Your task to perform on an android device: turn vacation reply on in the gmail app Image 0: 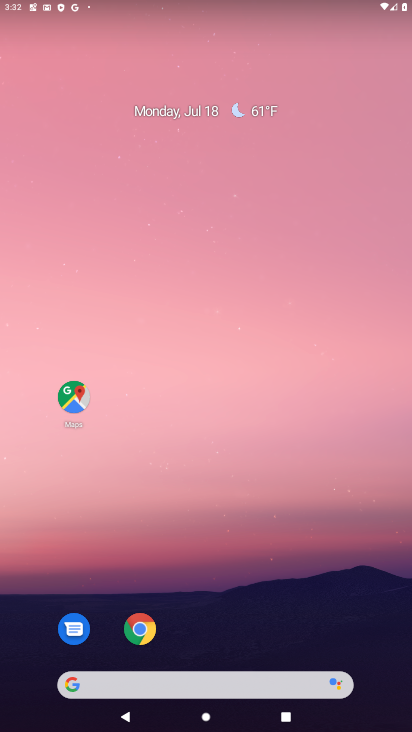
Step 0: drag from (209, 625) to (162, 141)
Your task to perform on an android device: turn vacation reply on in the gmail app Image 1: 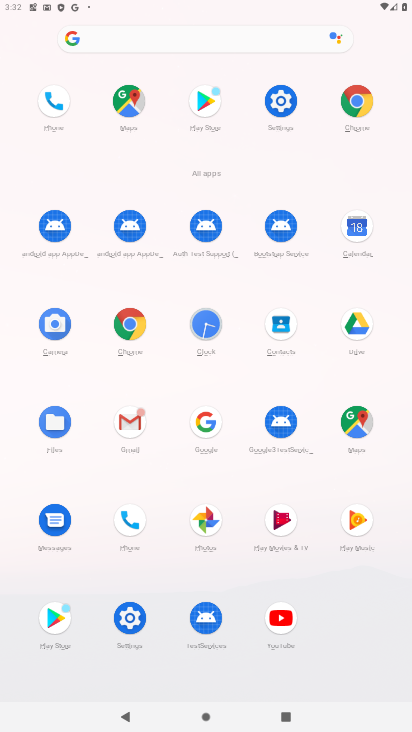
Step 1: click (129, 430)
Your task to perform on an android device: turn vacation reply on in the gmail app Image 2: 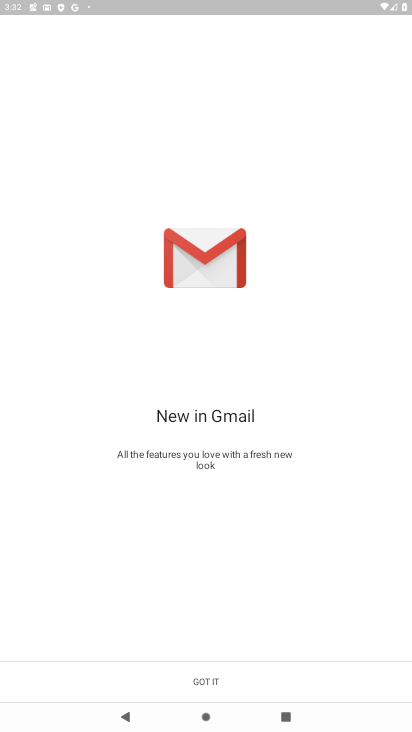
Step 2: click (210, 677)
Your task to perform on an android device: turn vacation reply on in the gmail app Image 3: 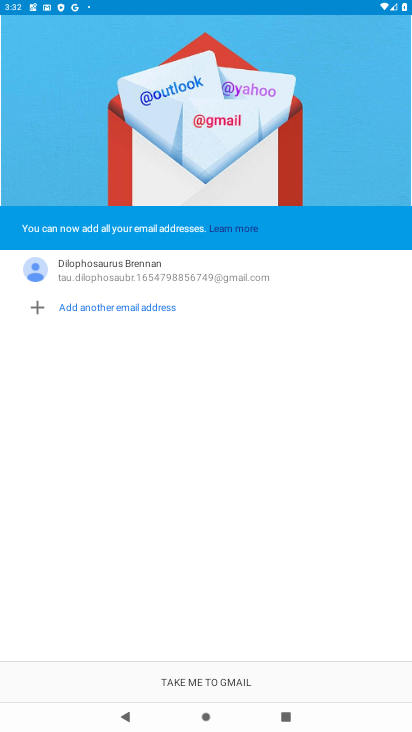
Step 3: click (210, 677)
Your task to perform on an android device: turn vacation reply on in the gmail app Image 4: 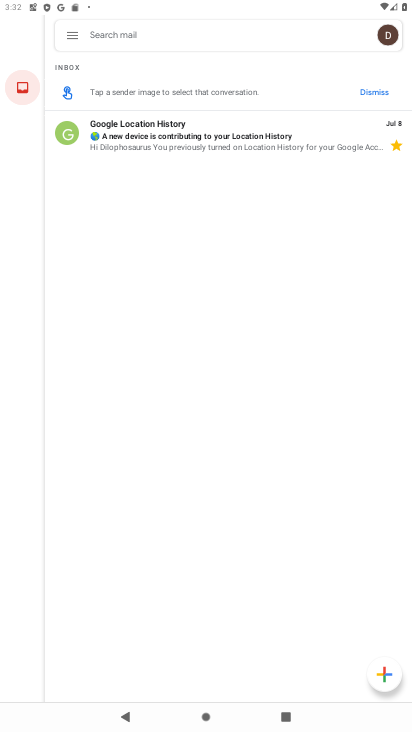
Step 4: click (69, 32)
Your task to perform on an android device: turn vacation reply on in the gmail app Image 5: 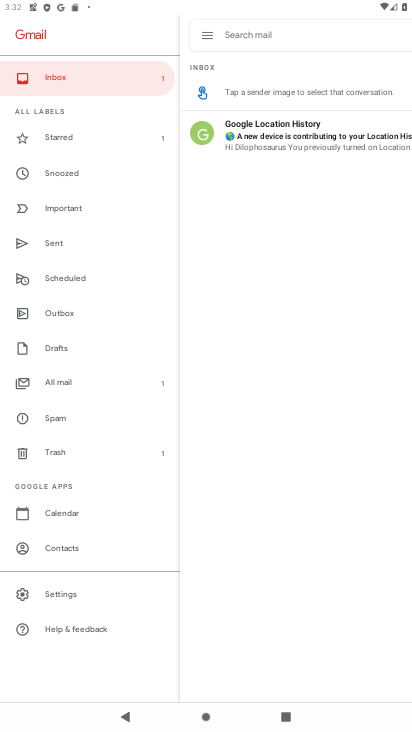
Step 5: click (50, 591)
Your task to perform on an android device: turn vacation reply on in the gmail app Image 6: 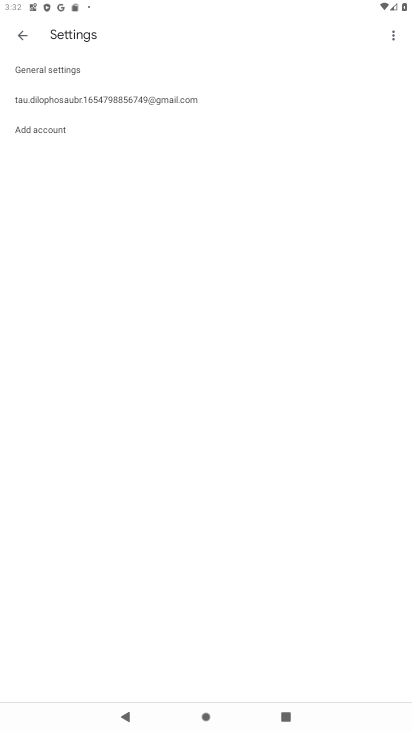
Step 6: click (43, 100)
Your task to perform on an android device: turn vacation reply on in the gmail app Image 7: 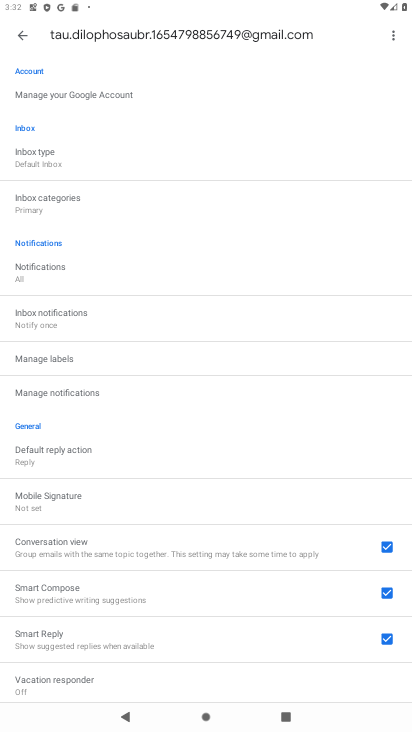
Step 7: drag from (32, 698) to (35, 291)
Your task to perform on an android device: turn vacation reply on in the gmail app Image 8: 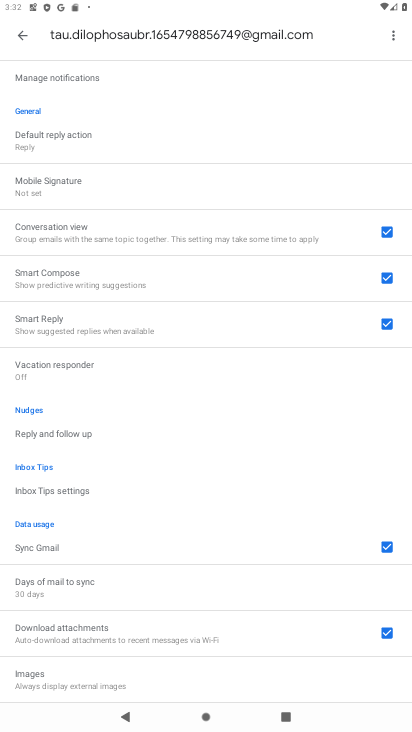
Step 8: click (38, 374)
Your task to perform on an android device: turn vacation reply on in the gmail app Image 9: 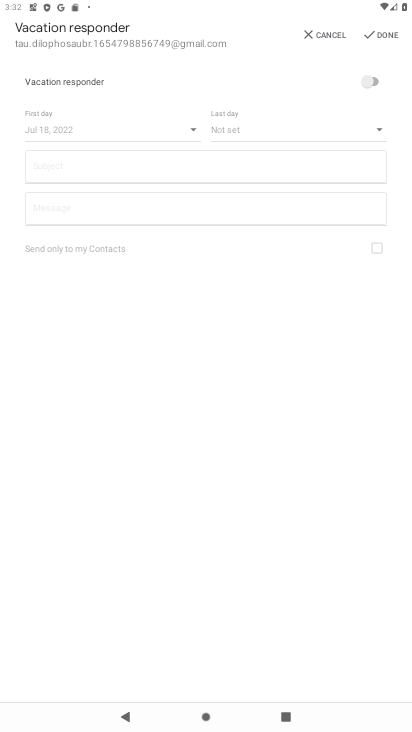
Step 9: click (375, 77)
Your task to perform on an android device: turn vacation reply on in the gmail app Image 10: 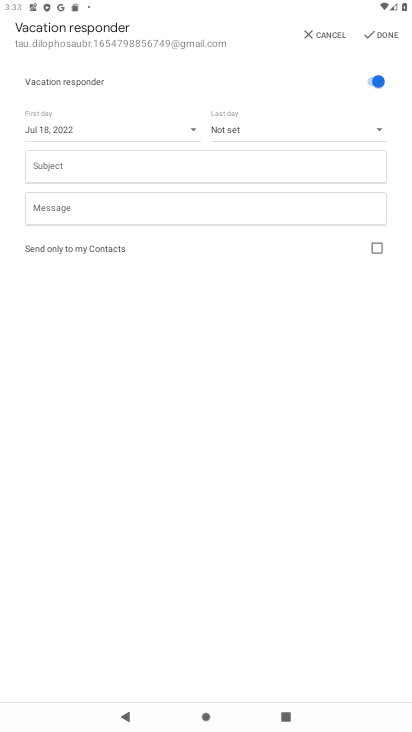
Step 10: click (372, 32)
Your task to perform on an android device: turn vacation reply on in the gmail app Image 11: 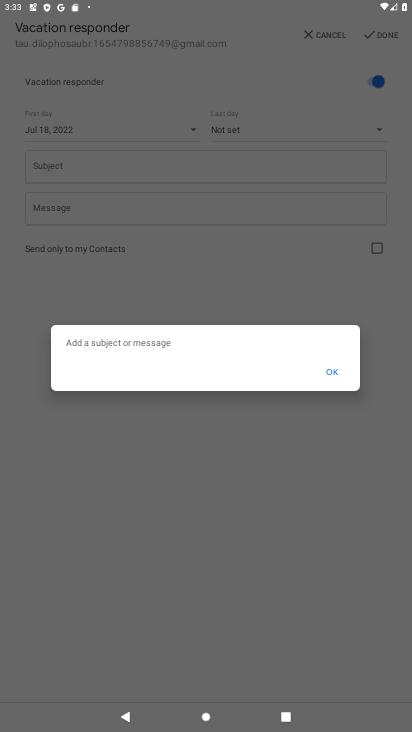
Step 11: click (327, 374)
Your task to perform on an android device: turn vacation reply on in the gmail app Image 12: 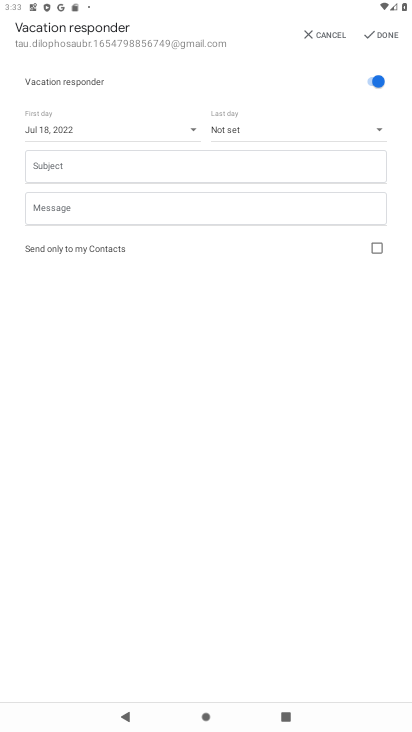
Step 12: task complete